Your task to perform on an android device: Open Reddit.com Image 0: 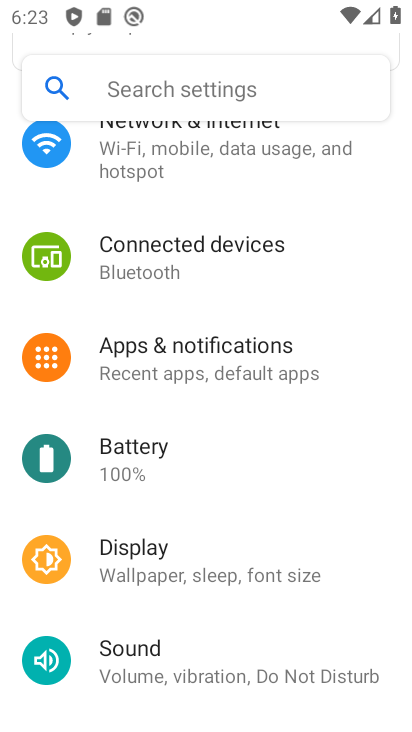
Step 0: press home button
Your task to perform on an android device: Open Reddit.com Image 1: 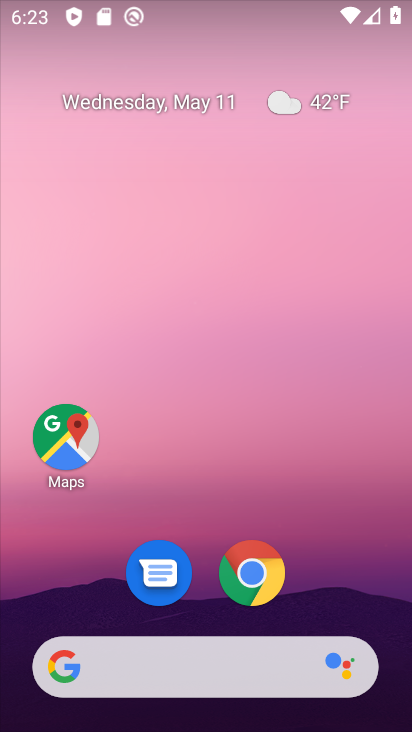
Step 1: click (254, 568)
Your task to perform on an android device: Open Reddit.com Image 2: 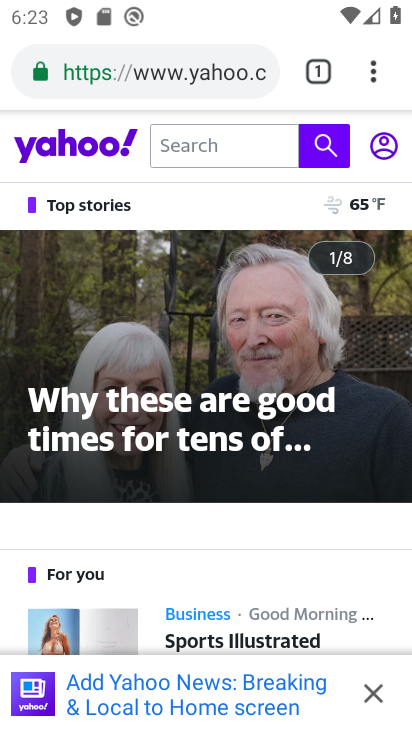
Step 2: click (157, 74)
Your task to perform on an android device: Open Reddit.com Image 3: 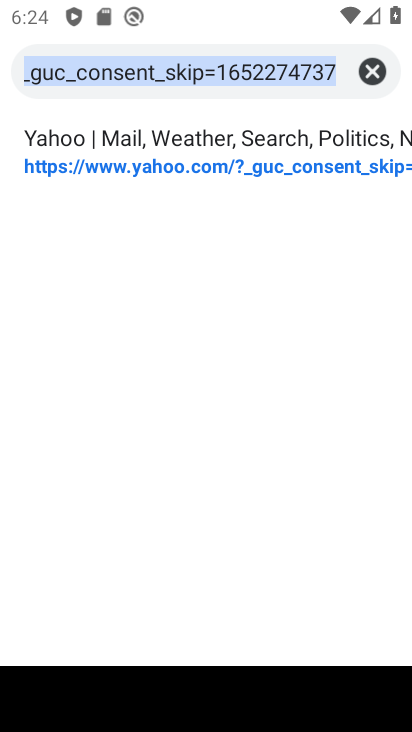
Step 3: type "www.reddit.com"
Your task to perform on an android device: Open Reddit.com Image 4: 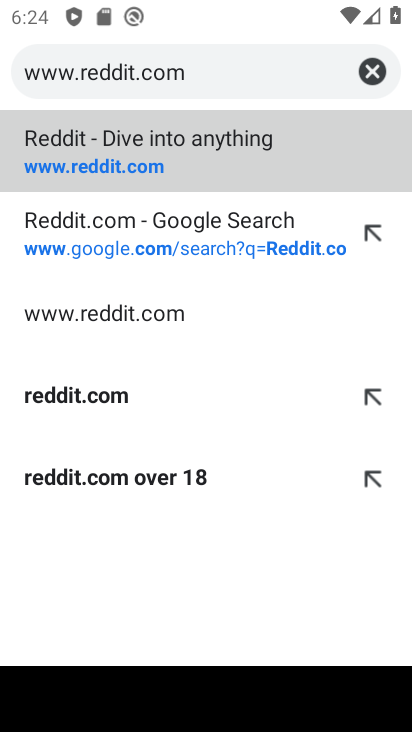
Step 4: click (126, 152)
Your task to perform on an android device: Open Reddit.com Image 5: 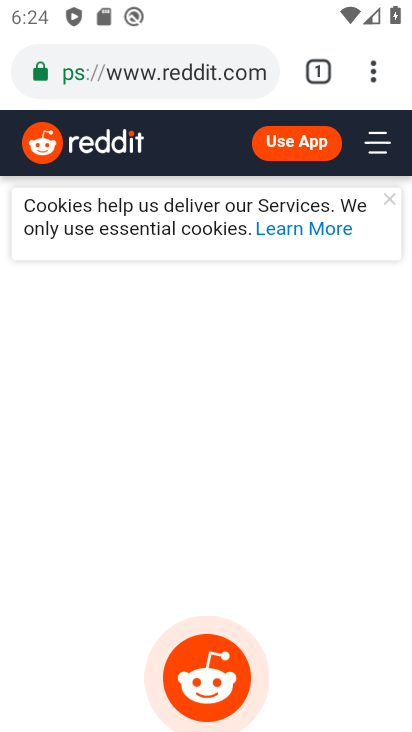
Step 5: task complete